Your task to perform on an android device: Open my contact list Image 0: 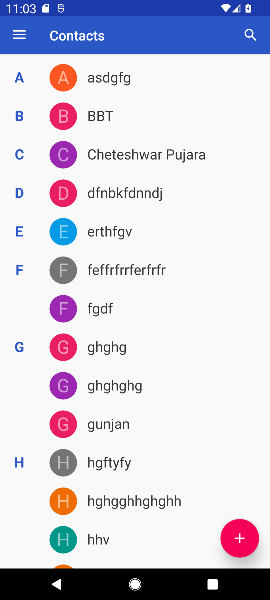
Step 0: task complete